Your task to perform on an android device: Set the phone to "Do not disturb". Image 0: 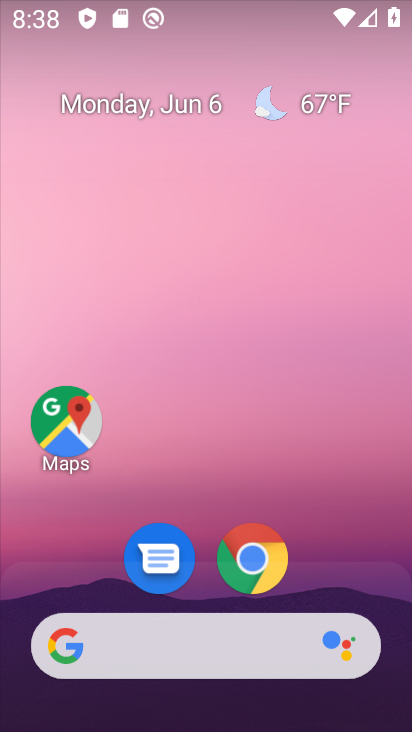
Step 0: drag from (248, 486) to (253, 114)
Your task to perform on an android device: Set the phone to "Do not disturb". Image 1: 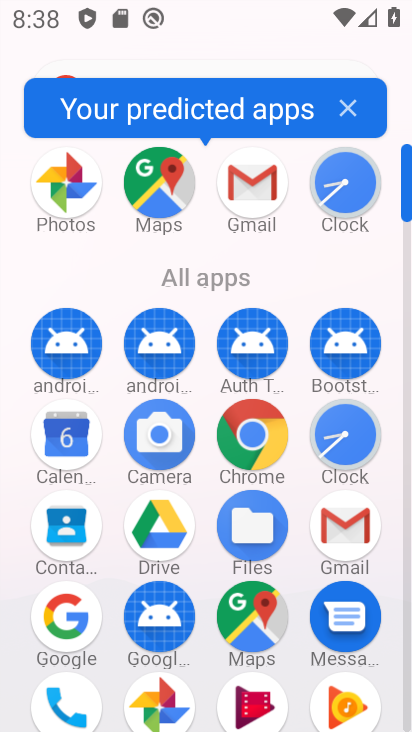
Step 1: drag from (220, 485) to (226, 208)
Your task to perform on an android device: Set the phone to "Do not disturb". Image 2: 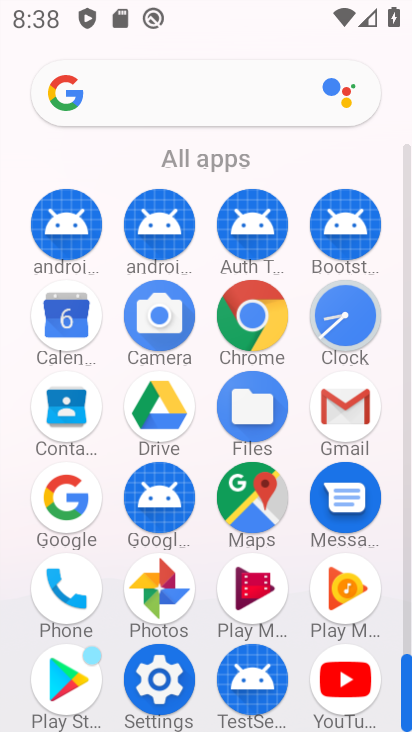
Step 2: click (170, 676)
Your task to perform on an android device: Set the phone to "Do not disturb". Image 3: 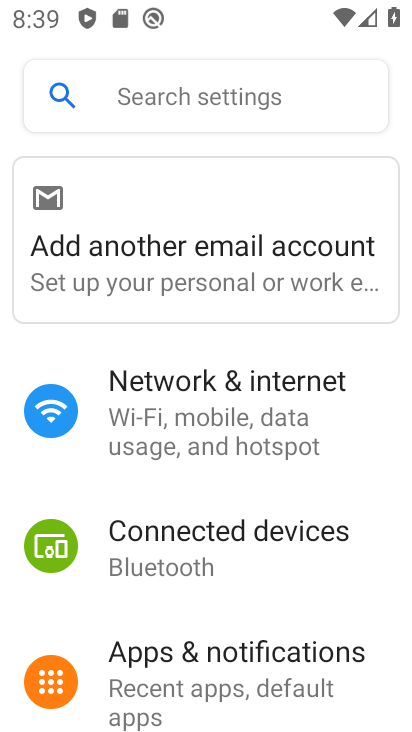
Step 3: drag from (214, 662) to (209, 287)
Your task to perform on an android device: Set the phone to "Do not disturb". Image 4: 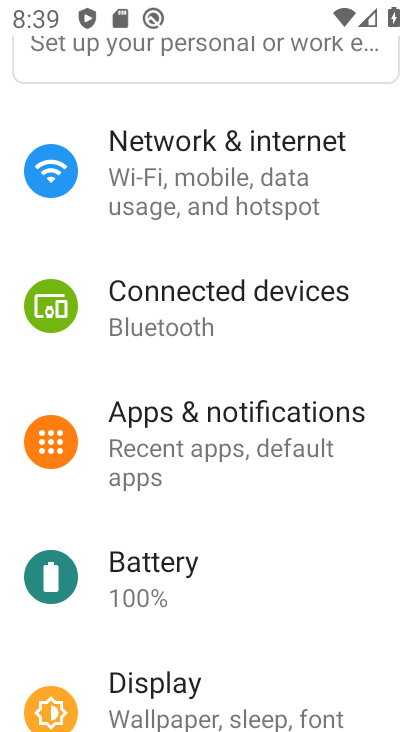
Step 4: drag from (227, 661) to (209, 305)
Your task to perform on an android device: Set the phone to "Do not disturb". Image 5: 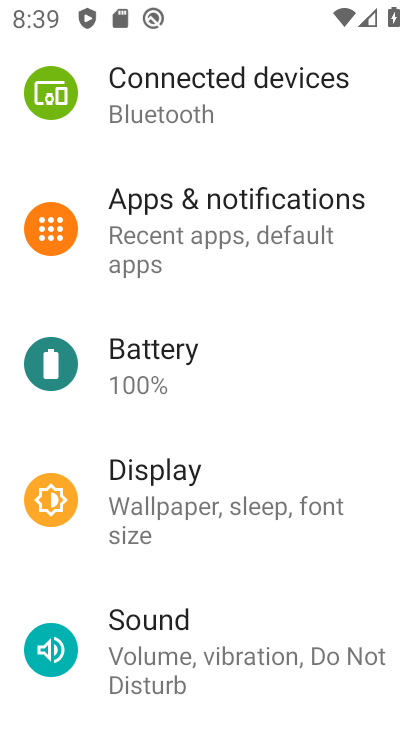
Step 5: click (212, 679)
Your task to perform on an android device: Set the phone to "Do not disturb". Image 6: 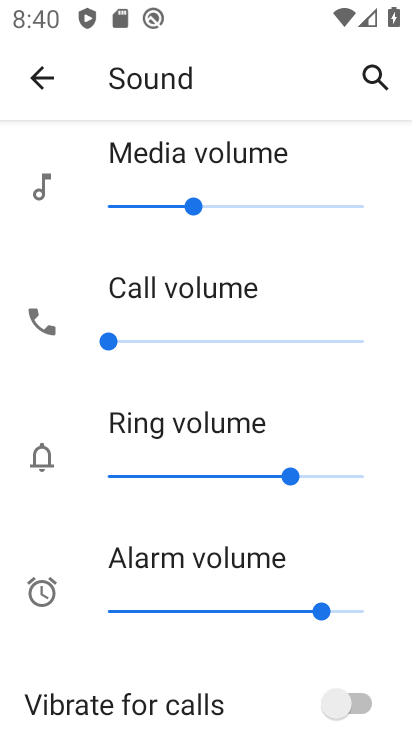
Step 6: drag from (183, 710) to (183, 286)
Your task to perform on an android device: Set the phone to "Do not disturb". Image 7: 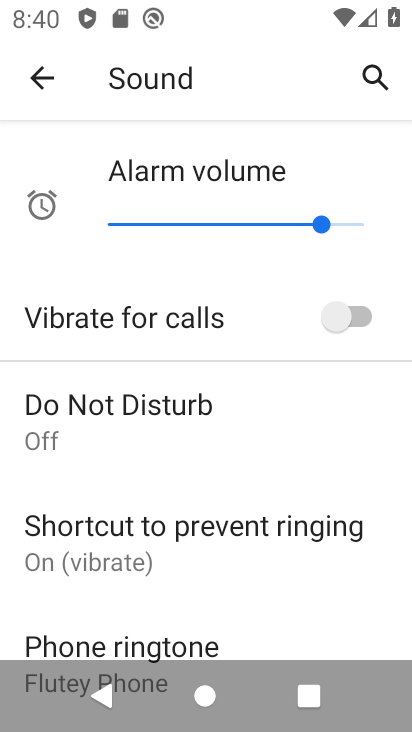
Step 7: click (94, 434)
Your task to perform on an android device: Set the phone to "Do not disturb". Image 8: 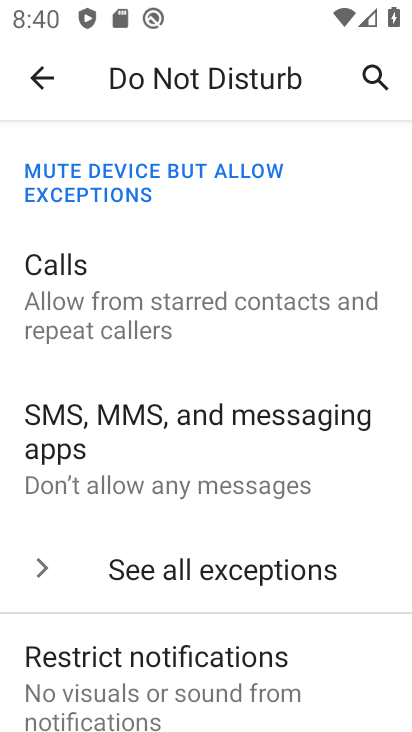
Step 8: drag from (166, 706) to (181, 352)
Your task to perform on an android device: Set the phone to "Do not disturb". Image 9: 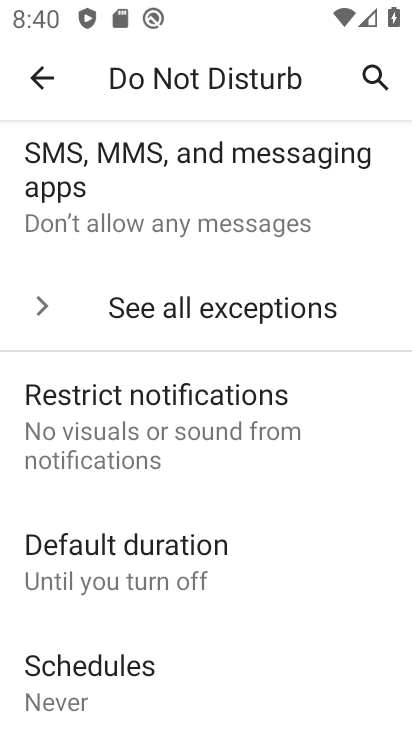
Step 9: drag from (150, 611) to (157, 182)
Your task to perform on an android device: Set the phone to "Do not disturb". Image 10: 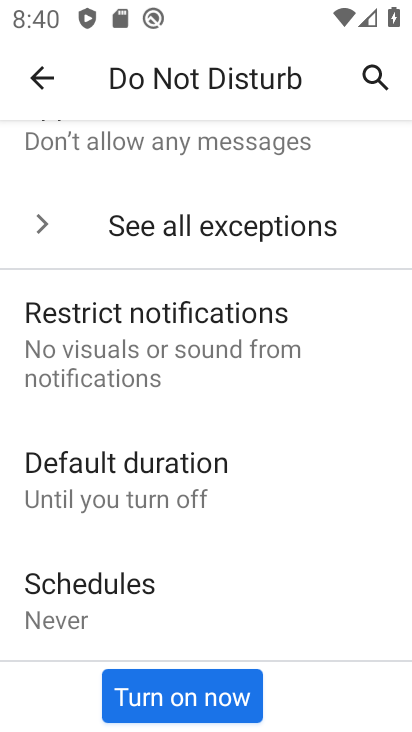
Step 10: click (169, 703)
Your task to perform on an android device: Set the phone to "Do not disturb". Image 11: 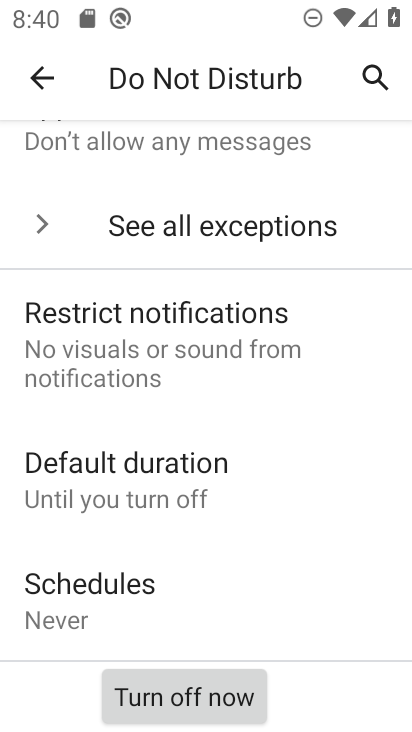
Step 11: task complete